Your task to perform on an android device: change alarm snooze length Image 0: 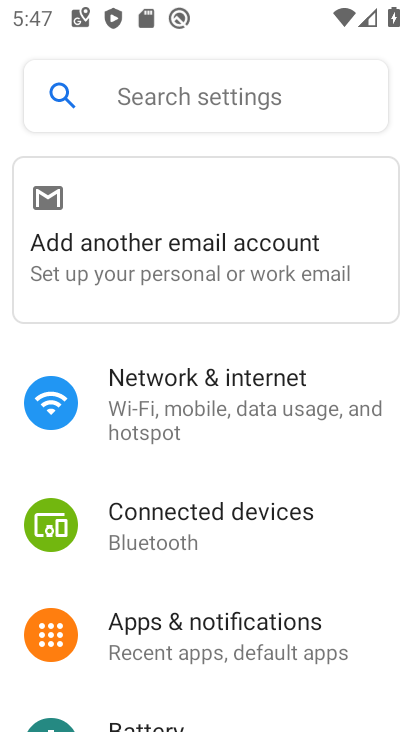
Step 0: press home button
Your task to perform on an android device: change alarm snooze length Image 1: 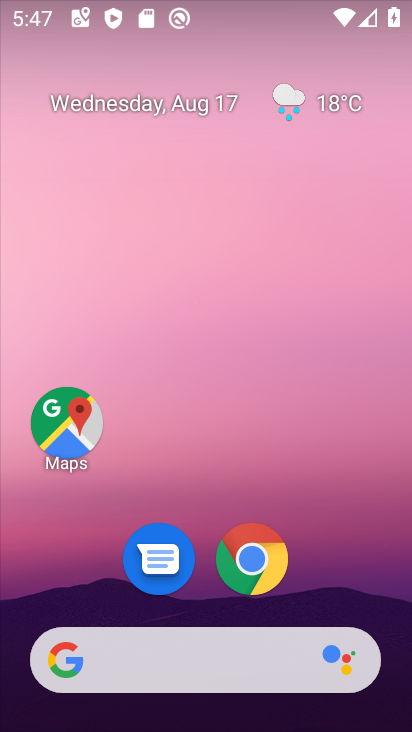
Step 1: drag from (201, 649) to (75, 2)
Your task to perform on an android device: change alarm snooze length Image 2: 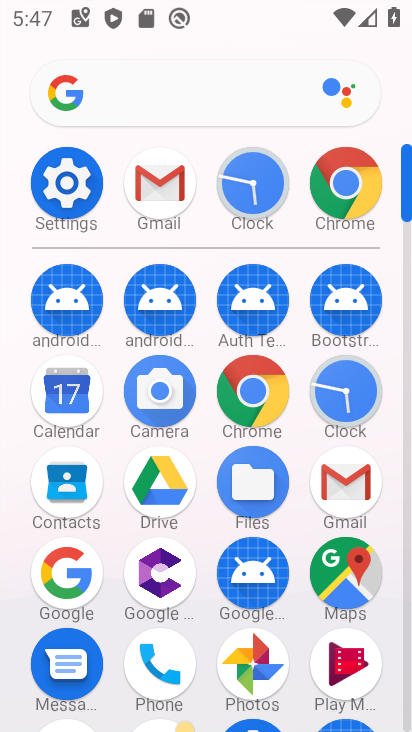
Step 2: click (269, 202)
Your task to perform on an android device: change alarm snooze length Image 3: 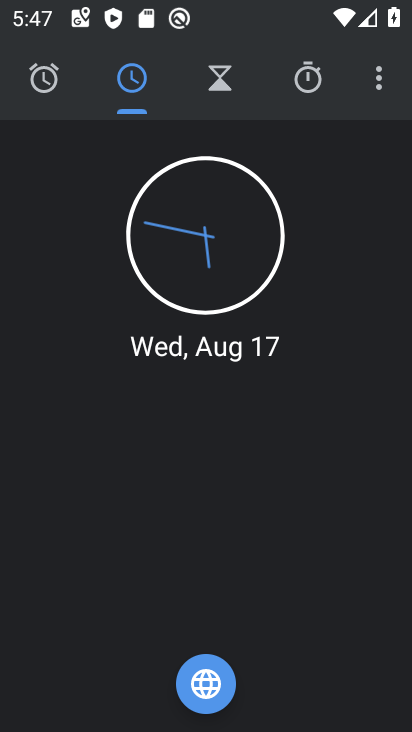
Step 3: click (379, 88)
Your task to perform on an android device: change alarm snooze length Image 4: 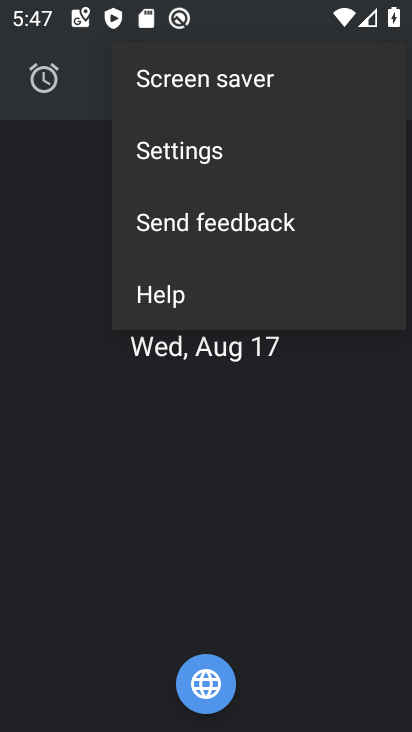
Step 4: click (227, 152)
Your task to perform on an android device: change alarm snooze length Image 5: 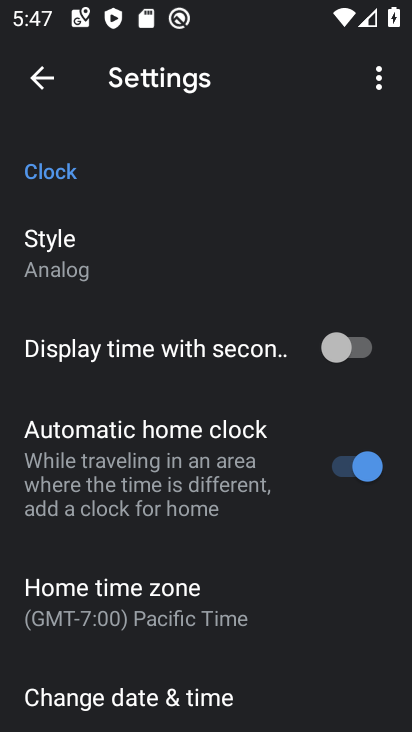
Step 5: drag from (257, 656) to (339, 103)
Your task to perform on an android device: change alarm snooze length Image 6: 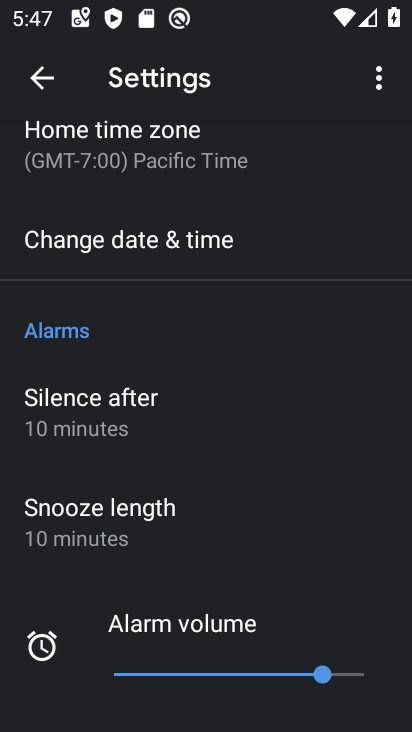
Step 6: click (159, 533)
Your task to perform on an android device: change alarm snooze length Image 7: 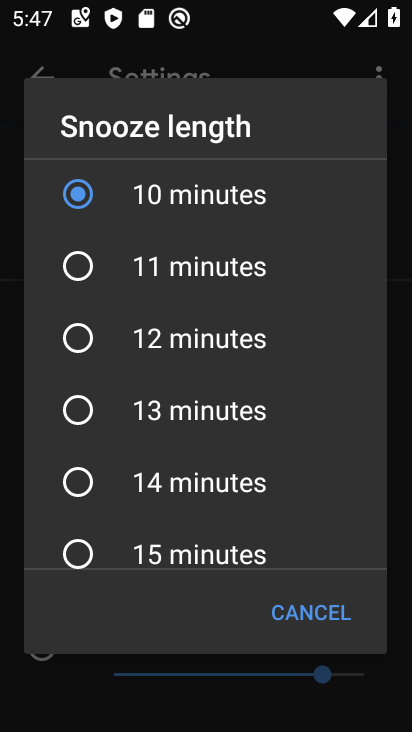
Step 7: click (166, 544)
Your task to perform on an android device: change alarm snooze length Image 8: 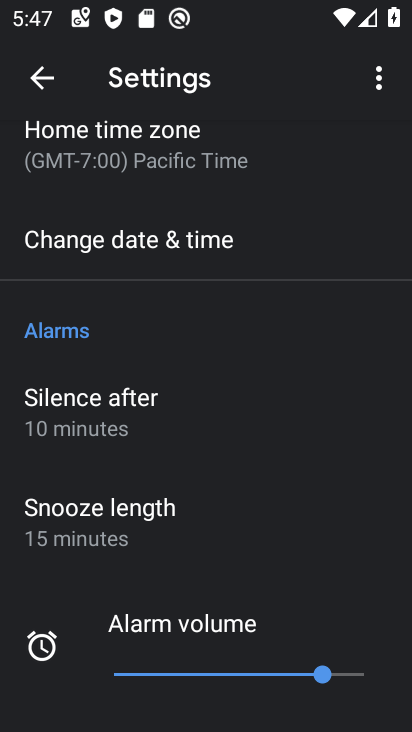
Step 8: task complete